Your task to perform on an android device: open the mobile data screen to see how much data has been used Image 0: 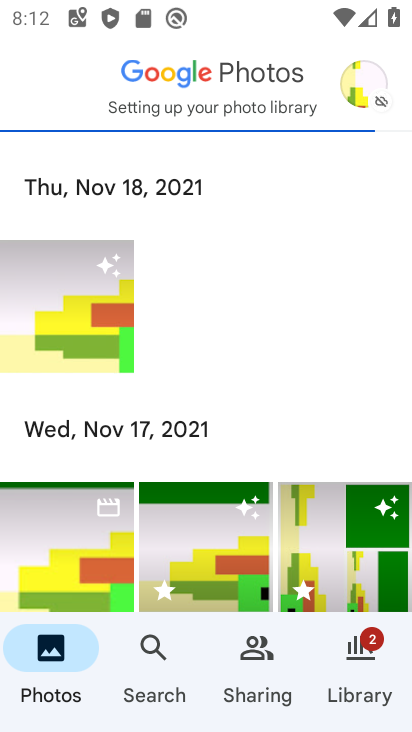
Step 0: press home button
Your task to perform on an android device: open the mobile data screen to see how much data has been used Image 1: 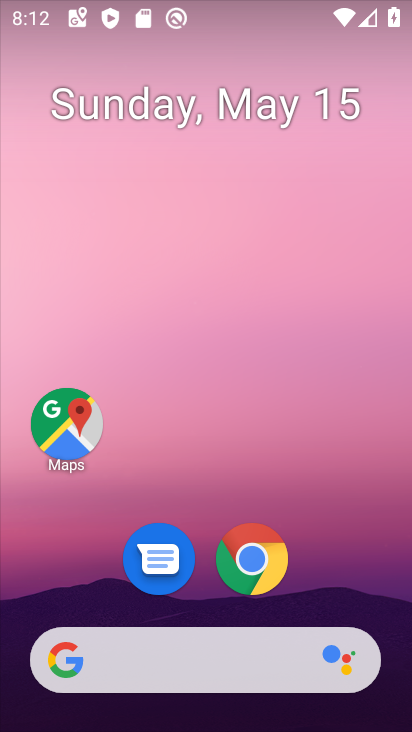
Step 1: drag from (354, 528) to (277, 1)
Your task to perform on an android device: open the mobile data screen to see how much data has been used Image 2: 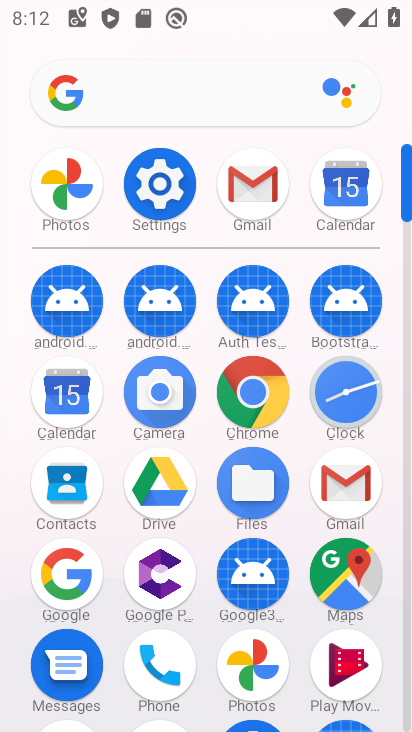
Step 2: click (154, 264)
Your task to perform on an android device: open the mobile data screen to see how much data has been used Image 3: 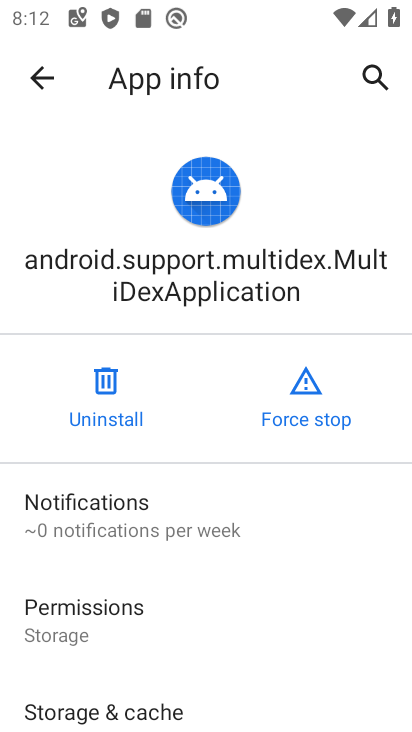
Step 3: click (25, 83)
Your task to perform on an android device: open the mobile data screen to see how much data has been used Image 4: 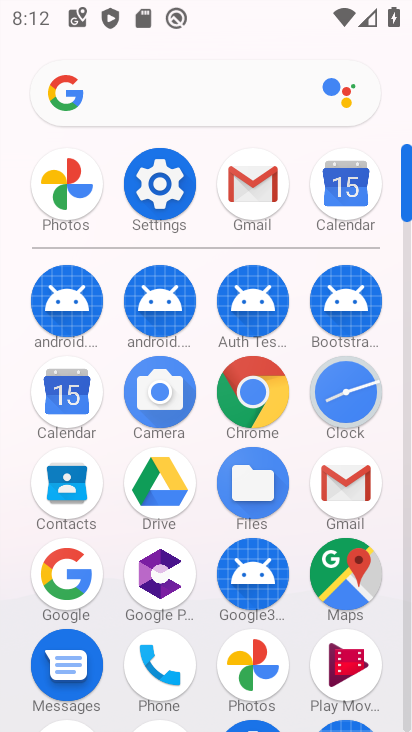
Step 4: click (150, 187)
Your task to perform on an android device: open the mobile data screen to see how much data has been used Image 5: 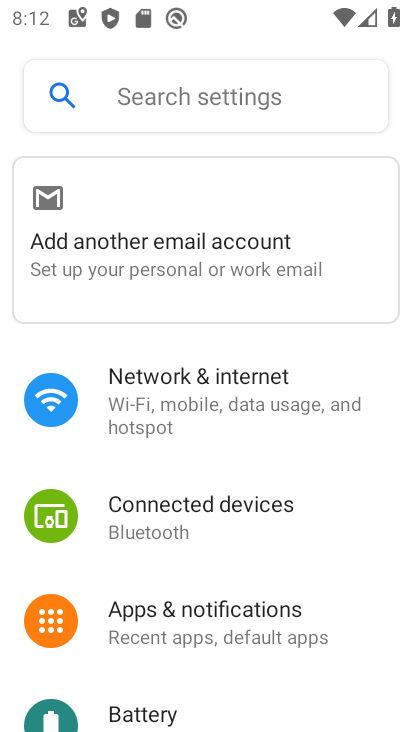
Step 5: click (214, 408)
Your task to perform on an android device: open the mobile data screen to see how much data has been used Image 6: 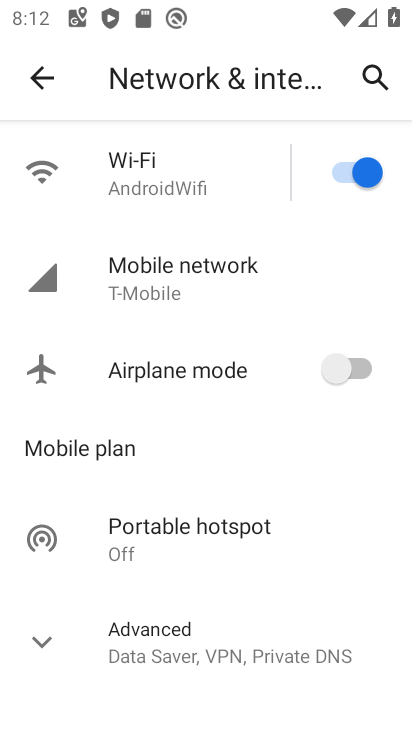
Step 6: click (196, 255)
Your task to perform on an android device: open the mobile data screen to see how much data has been used Image 7: 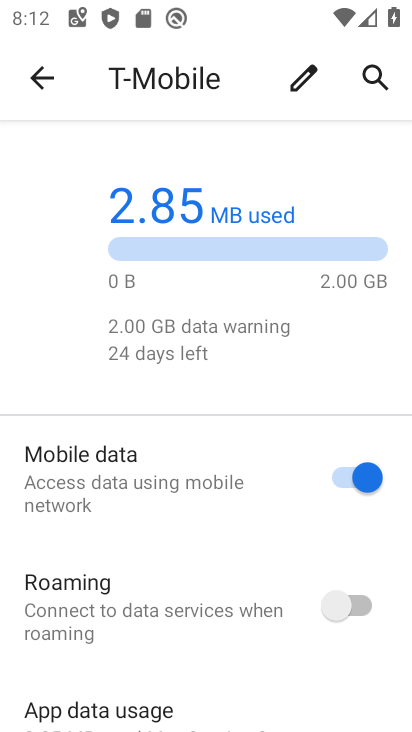
Step 7: click (200, 689)
Your task to perform on an android device: open the mobile data screen to see how much data has been used Image 8: 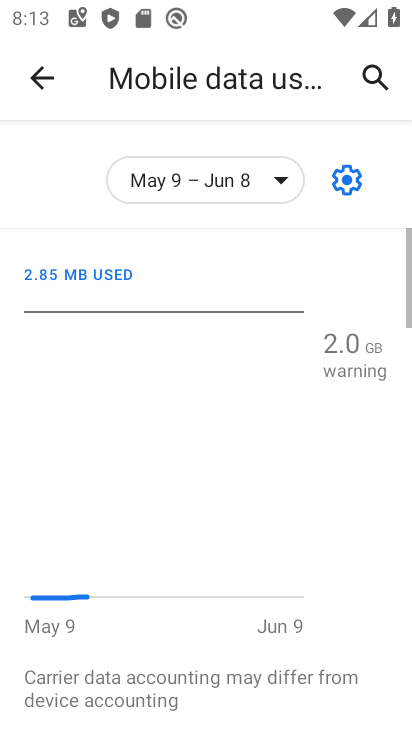
Step 8: task complete